Your task to perform on an android device: Open calendar and show me the third week of next month Image 0: 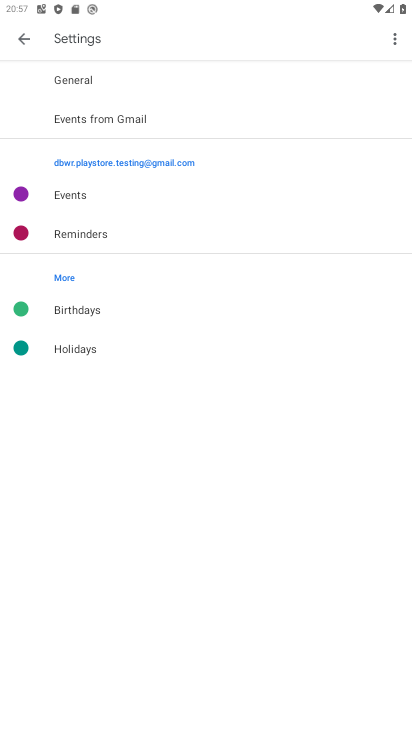
Step 0: press back button
Your task to perform on an android device: Open calendar and show me the third week of next month Image 1: 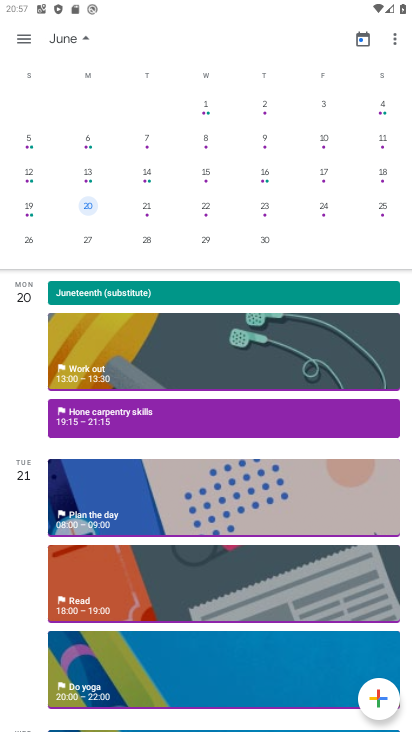
Step 1: press back button
Your task to perform on an android device: Open calendar and show me the third week of next month Image 2: 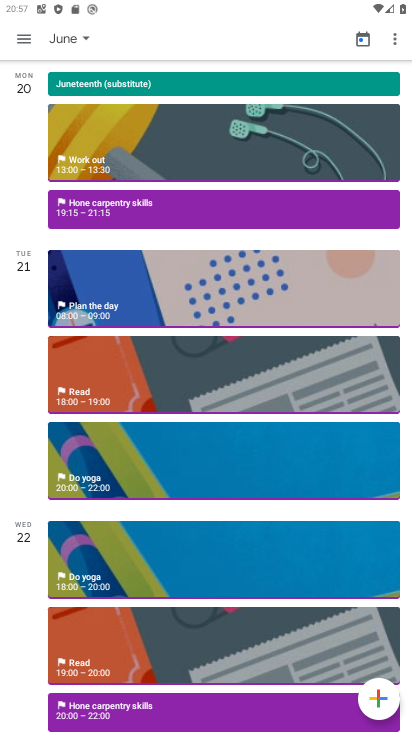
Step 2: click (78, 39)
Your task to perform on an android device: Open calendar and show me the third week of next month Image 3: 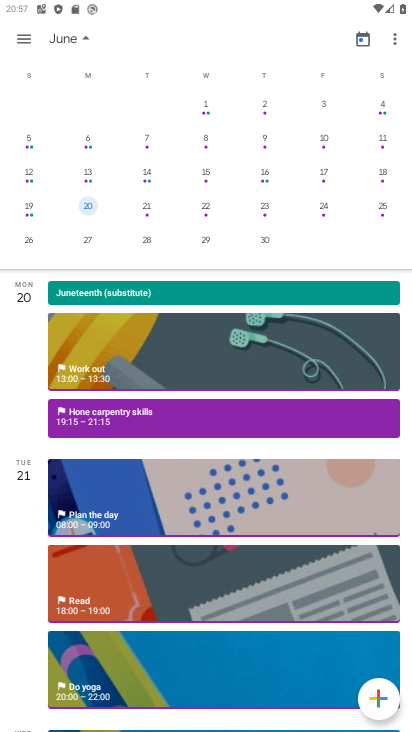
Step 3: click (83, 179)
Your task to perform on an android device: Open calendar and show me the third week of next month Image 4: 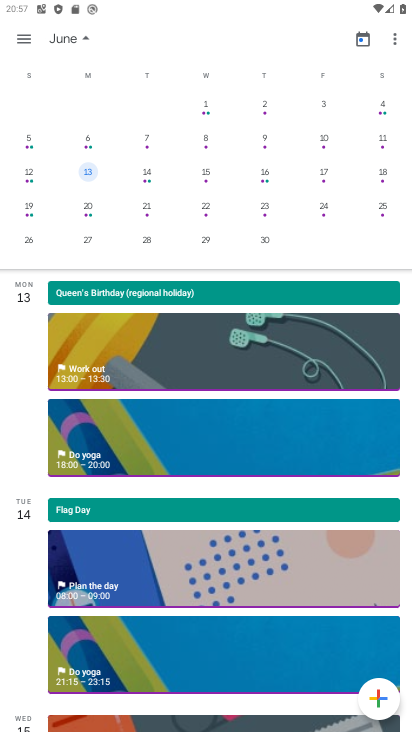
Step 4: task complete